Your task to perform on an android device: When is my next meeting? Image 0: 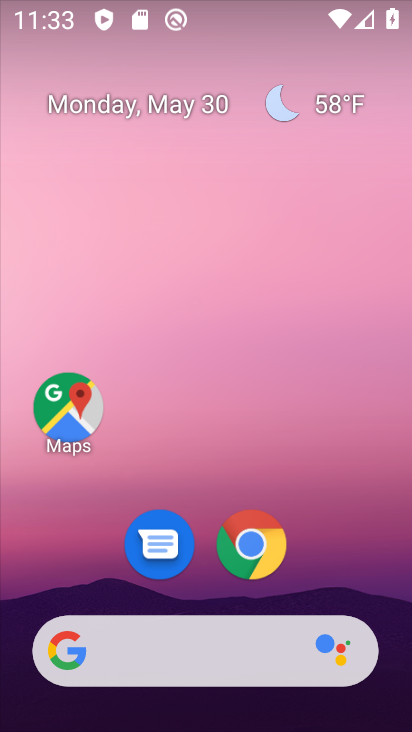
Step 0: task complete